Your task to perform on an android device: all mails in gmail Image 0: 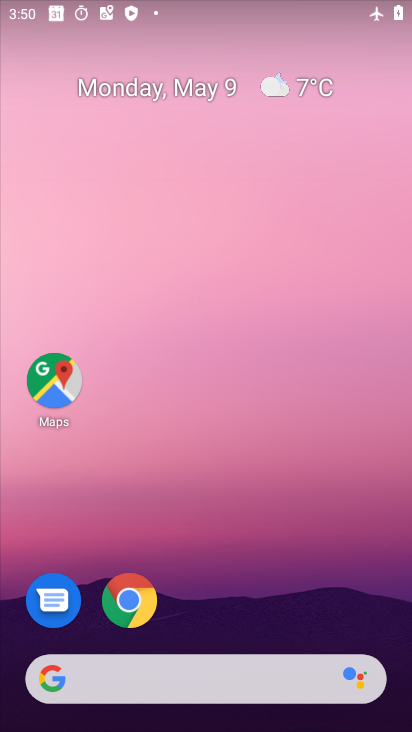
Step 0: drag from (309, 599) to (272, 201)
Your task to perform on an android device: all mails in gmail Image 1: 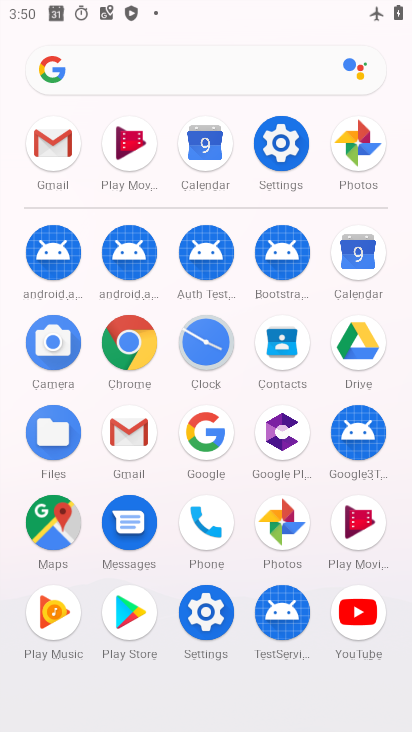
Step 1: click (121, 429)
Your task to perform on an android device: all mails in gmail Image 2: 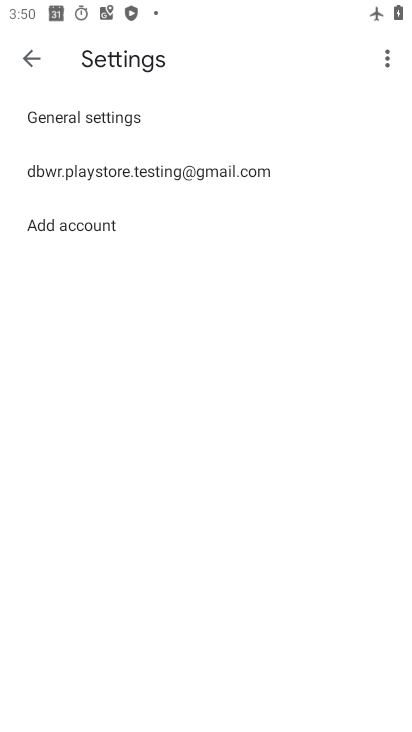
Step 2: click (25, 58)
Your task to perform on an android device: all mails in gmail Image 3: 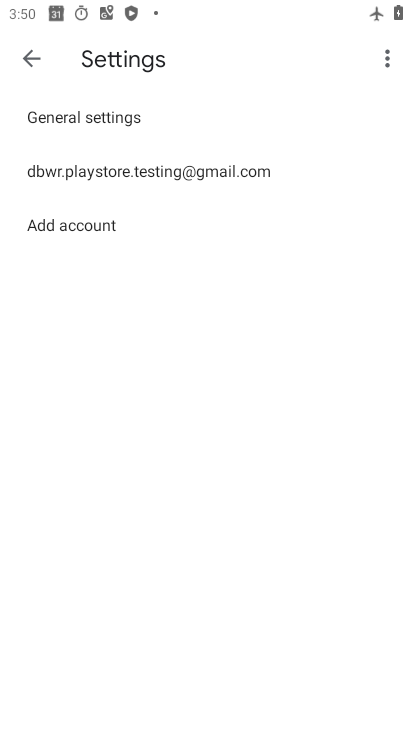
Step 3: click (33, 56)
Your task to perform on an android device: all mails in gmail Image 4: 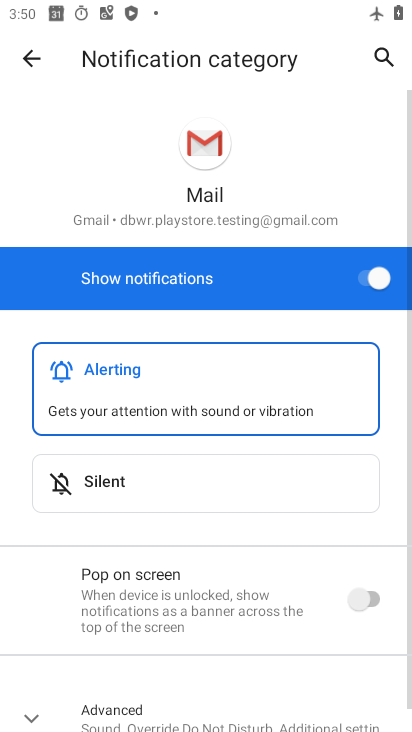
Step 4: click (49, 64)
Your task to perform on an android device: all mails in gmail Image 5: 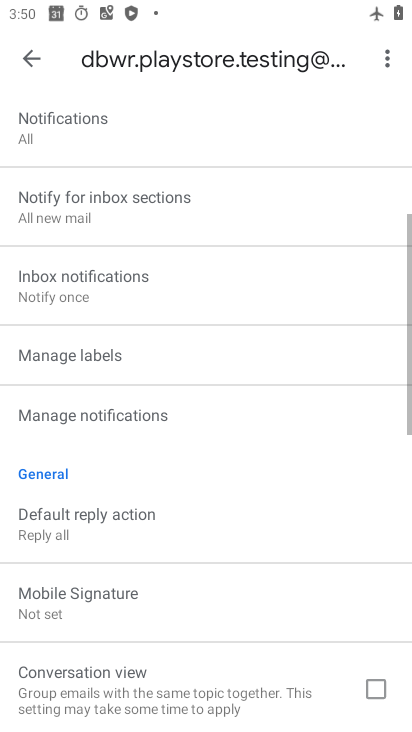
Step 5: click (37, 63)
Your task to perform on an android device: all mails in gmail Image 6: 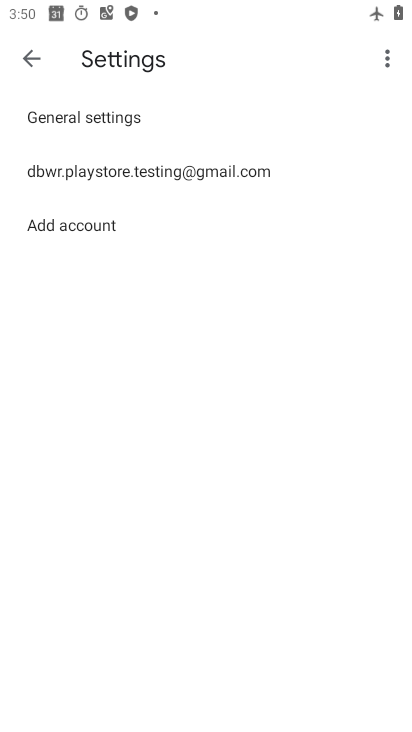
Step 6: click (36, 56)
Your task to perform on an android device: all mails in gmail Image 7: 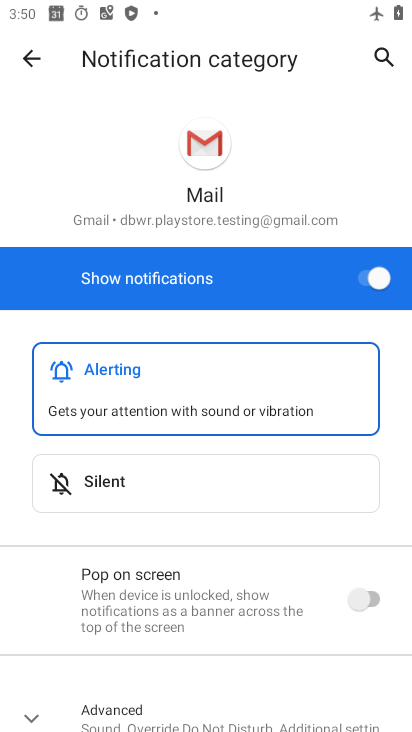
Step 7: drag from (280, 646) to (265, 169)
Your task to perform on an android device: all mails in gmail Image 8: 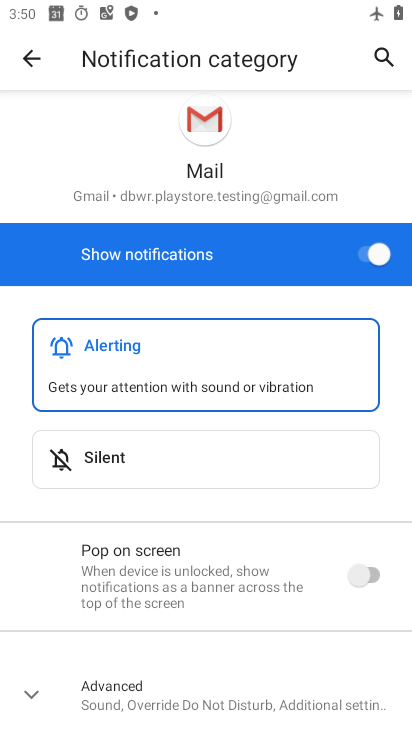
Step 8: click (29, 61)
Your task to perform on an android device: all mails in gmail Image 9: 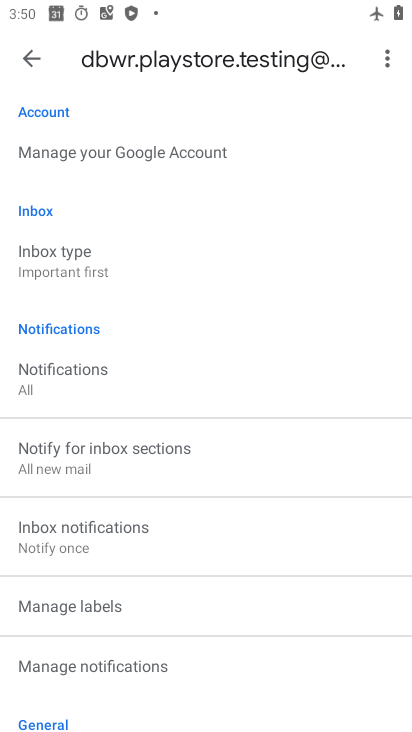
Step 9: click (32, 68)
Your task to perform on an android device: all mails in gmail Image 10: 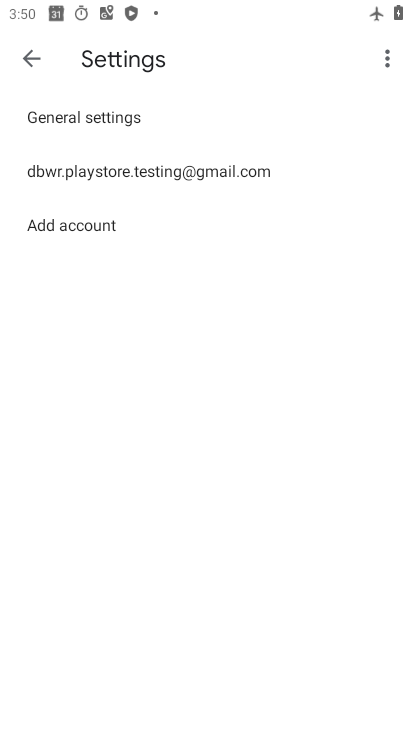
Step 10: click (31, 67)
Your task to perform on an android device: all mails in gmail Image 11: 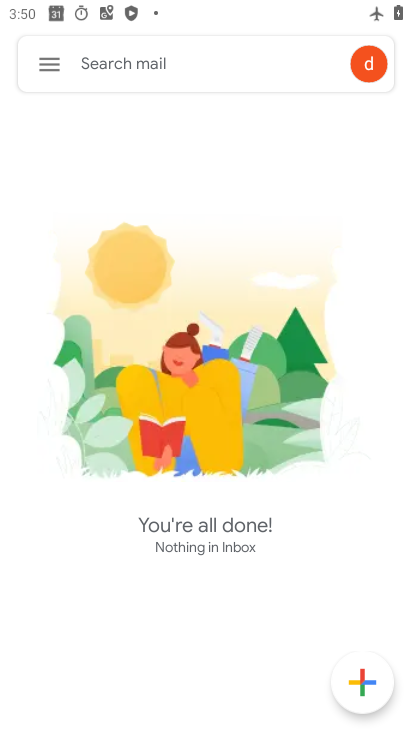
Step 11: click (34, 63)
Your task to perform on an android device: all mails in gmail Image 12: 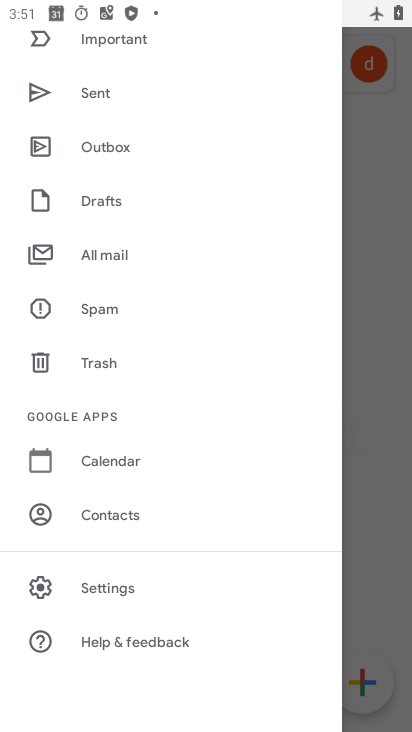
Step 12: click (113, 250)
Your task to perform on an android device: all mails in gmail Image 13: 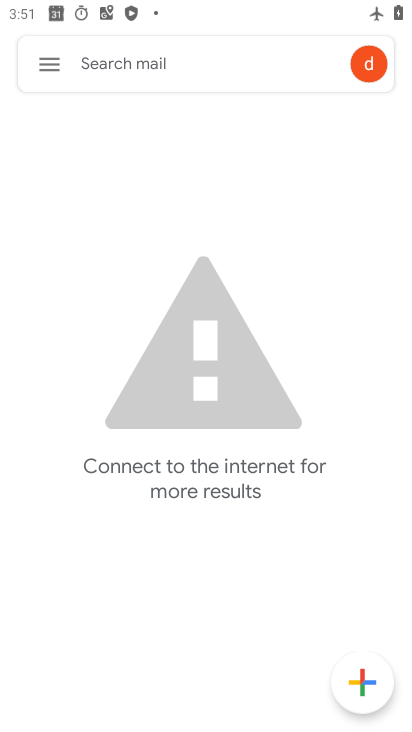
Step 13: task complete